Your task to perform on an android device: open sync settings in chrome Image 0: 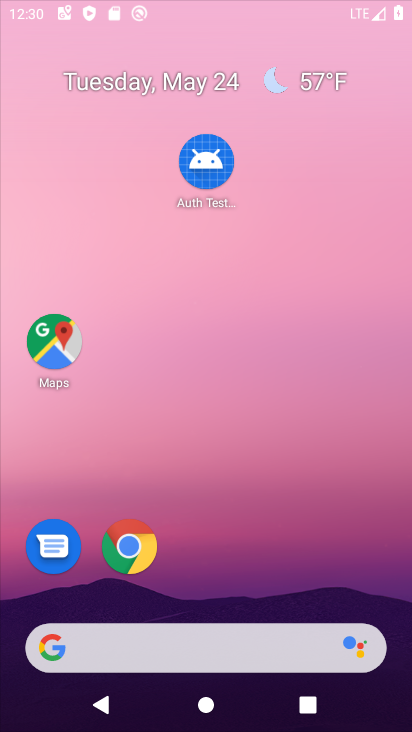
Step 0: click (304, 131)
Your task to perform on an android device: open sync settings in chrome Image 1: 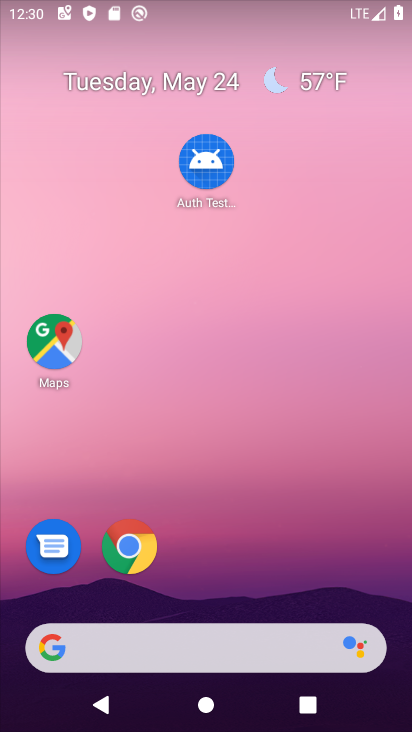
Step 1: drag from (254, 604) to (325, 58)
Your task to perform on an android device: open sync settings in chrome Image 2: 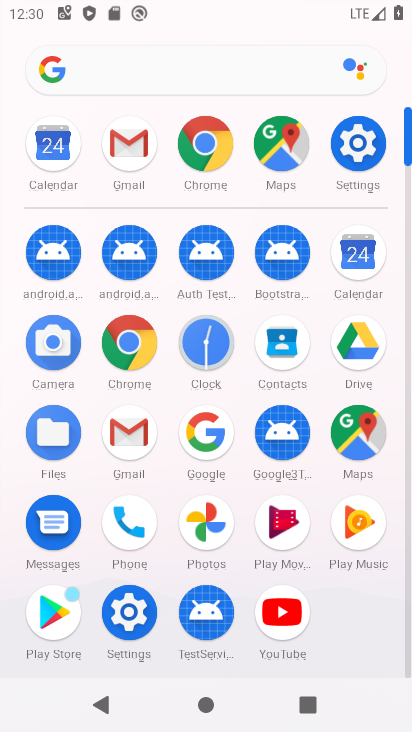
Step 2: click (116, 341)
Your task to perform on an android device: open sync settings in chrome Image 3: 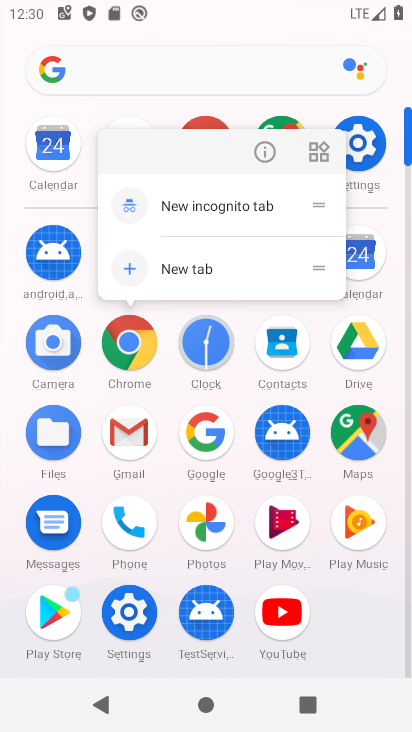
Step 3: click (263, 160)
Your task to perform on an android device: open sync settings in chrome Image 4: 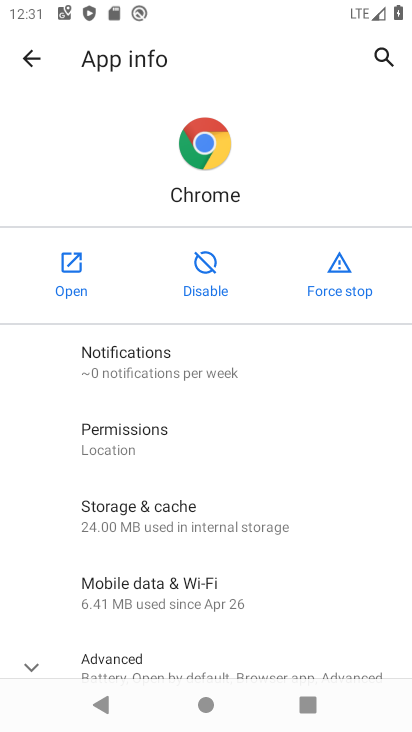
Step 4: click (74, 281)
Your task to perform on an android device: open sync settings in chrome Image 5: 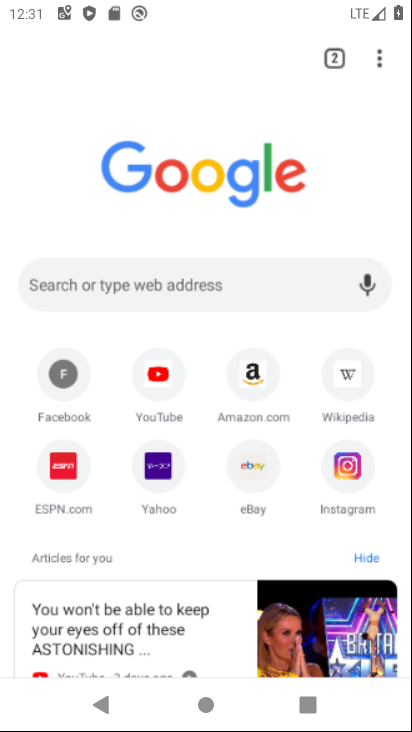
Step 5: click (369, 60)
Your task to perform on an android device: open sync settings in chrome Image 6: 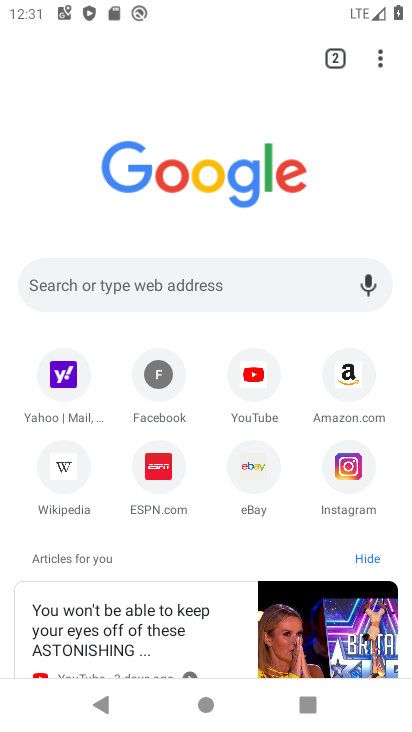
Step 6: drag from (216, 302) to (246, 137)
Your task to perform on an android device: open sync settings in chrome Image 7: 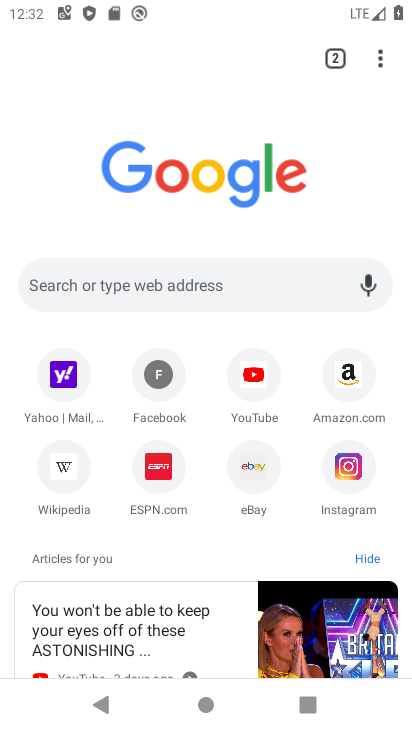
Step 7: drag from (214, 514) to (285, 30)
Your task to perform on an android device: open sync settings in chrome Image 8: 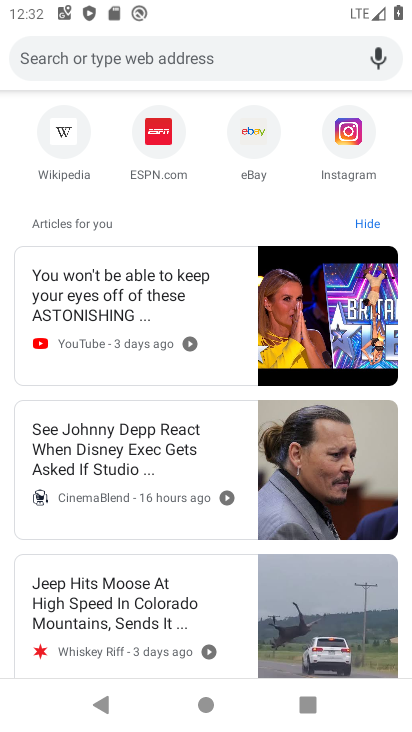
Step 8: drag from (197, 599) to (245, 116)
Your task to perform on an android device: open sync settings in chrome Image 9: 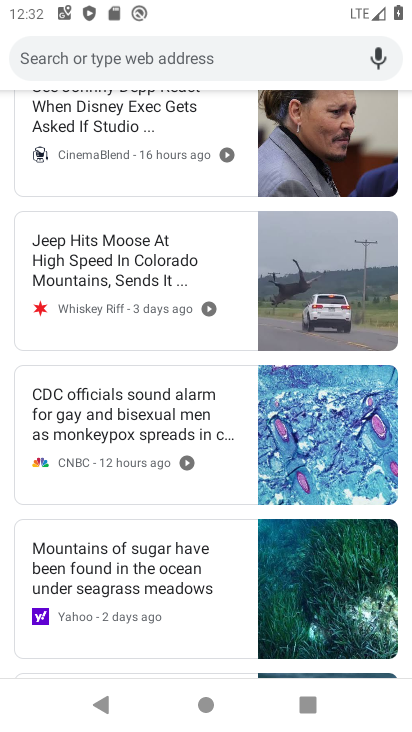
Step 9: drag from (220, 230) to (265, 695)
Your task to perform on an android device: open sync settings in chrome Image 10: 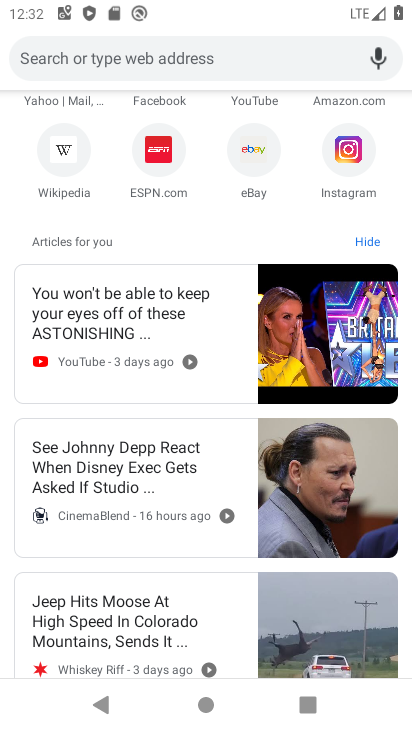
Step 10: drag from (133, 571) to (238, 670)
Your task to perform on an android device: open sync settings in chrome Image 11: 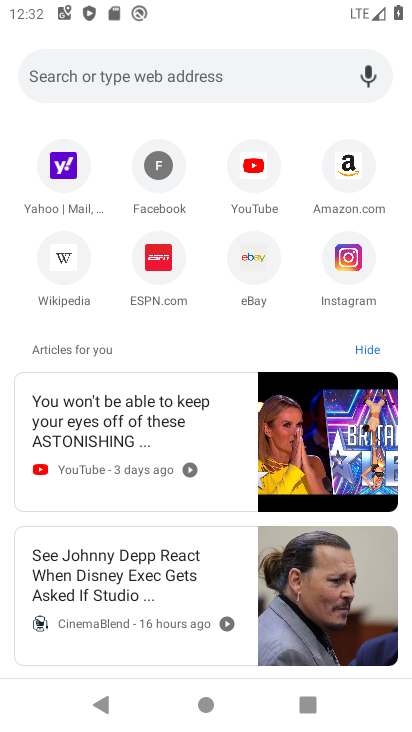
Step 11: drag from (225, 125) to (333, 592)
Your task to perform on an android device: open sync settings in chrome Image 12: 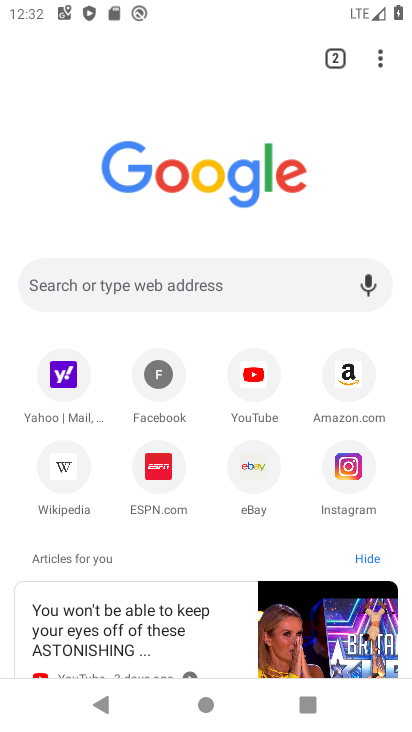
Step 12: click (373, 52)
Your task to perform on an android device: open sync settings in chrome Image 13: 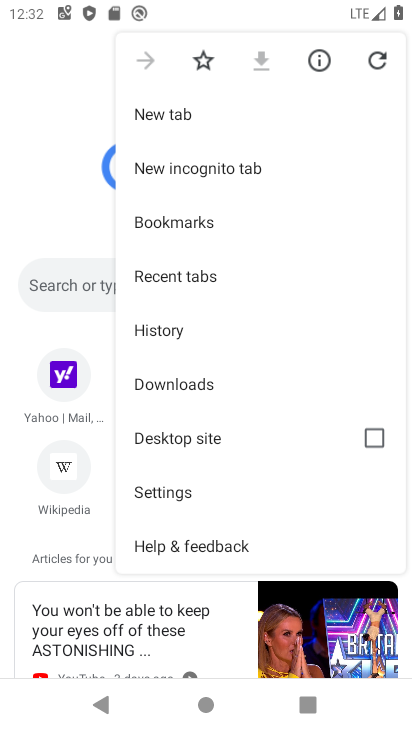
Step 13: drag from (259, 561) to (330, 186)
Your task to perform on an android device: open sync settings in chrome Image 14: 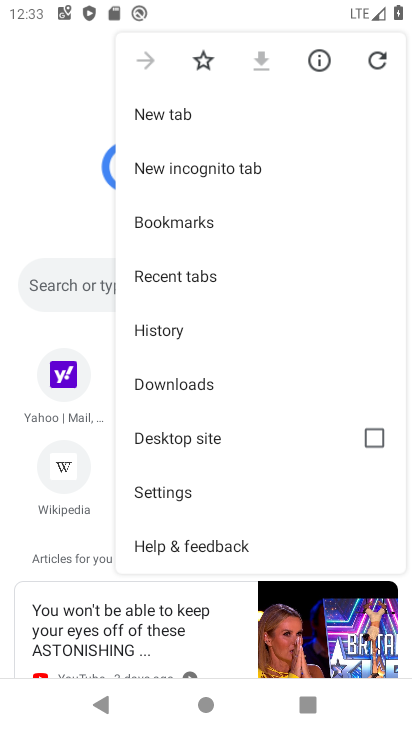
Step 14: click (213, 491)
Your task to perform on an android device: open sync settings in chrome Image 15: 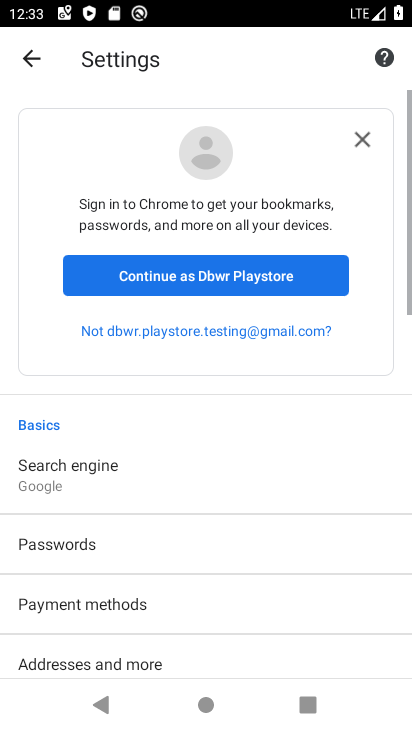
Step 15: drag from (244, 612) to (360, 17)
Your task to perform on an android device: open sync settings in chrome Image 16: 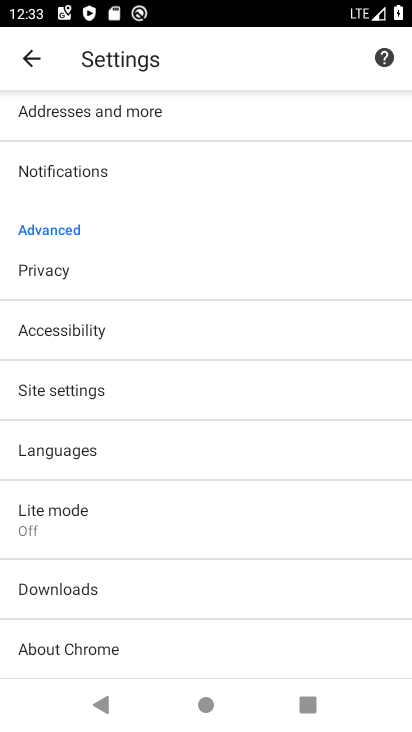
Step 16: drag from (206, 570) to (308, 202)
Your task to perform on an android device: open sync settings in chrome Image 17: 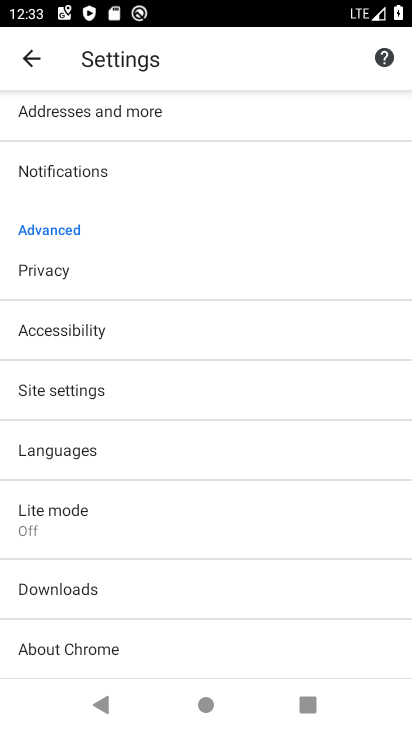
Step 17: click (115, 391)
Your task to perform on an android device: open sync settings in chrome Image 18: 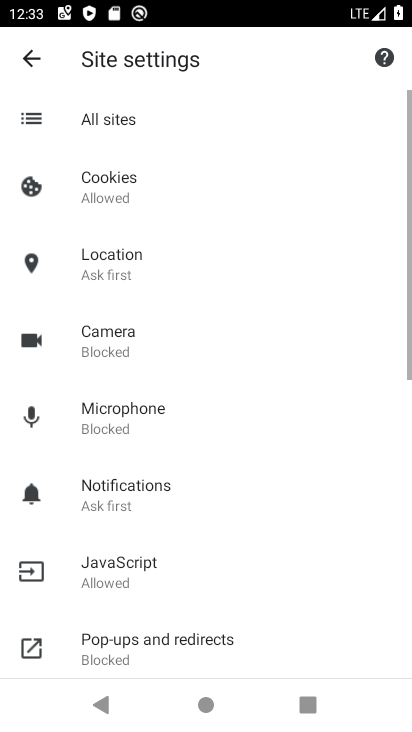
Step 18: drag from (223, 616) to (245, 209)
Your task to perform on an android device: open sync settings in chrome Image 19: 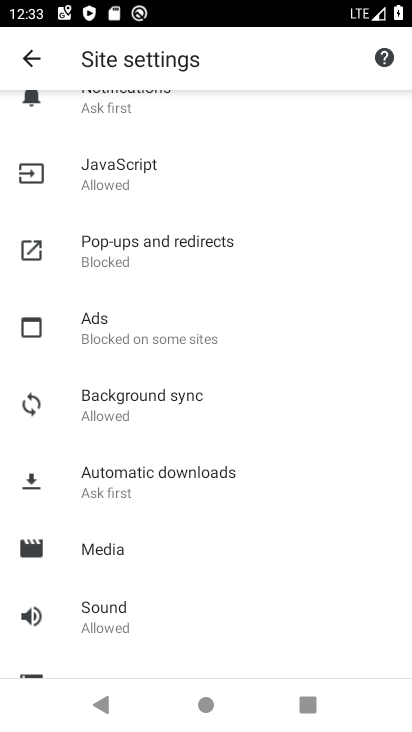
Step 19: drag from (212, 551) to (272, 387)
Your task to perform on an android device: open sync settings in chrome Image 20: 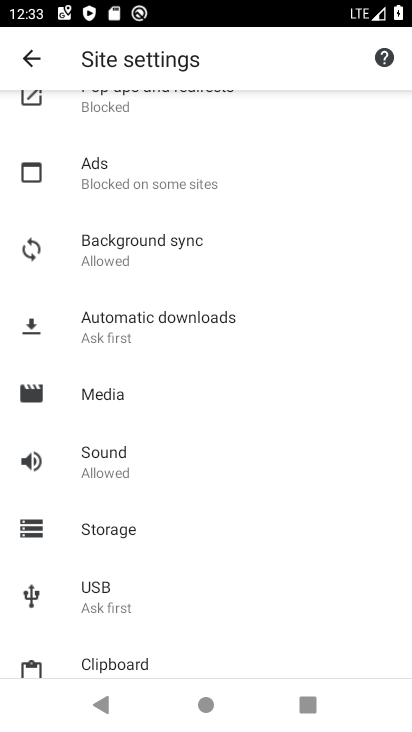
Step 20: drag from (208, 220) to (275, 649)
Your task to perform on an android device: open sync settings in chrome Image 21: 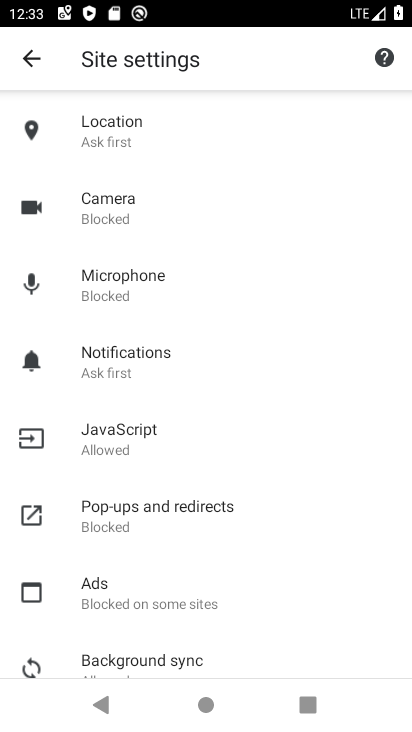
Step 21: drag from (207, 241) to (244, 582)
Your task to perform on an android device: open sync settings in chrome Image 22: 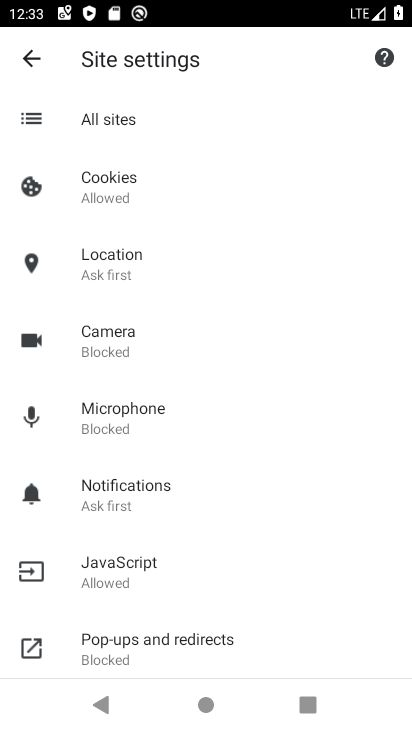
Step 22: drag from (249, 536) to (320, 45)
Your task to perform on an android device: open sync settings in chrome Image 23: 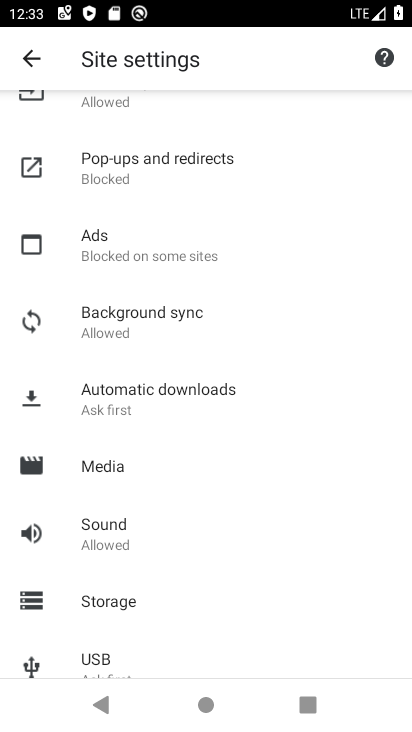
Step 23: drag from (181, 568) to (275, 141)
Your task to perform on an android device: open sync settings in chrome Image 24: 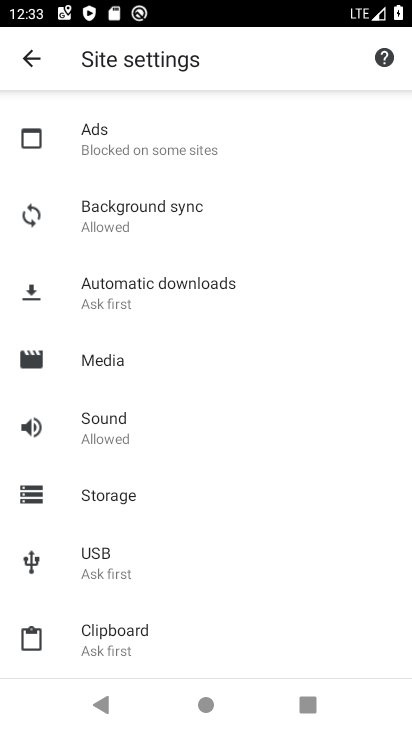
Step 24: click (21, 58)
Your task to perform on an android device: open sync settings in chrome Image 25: 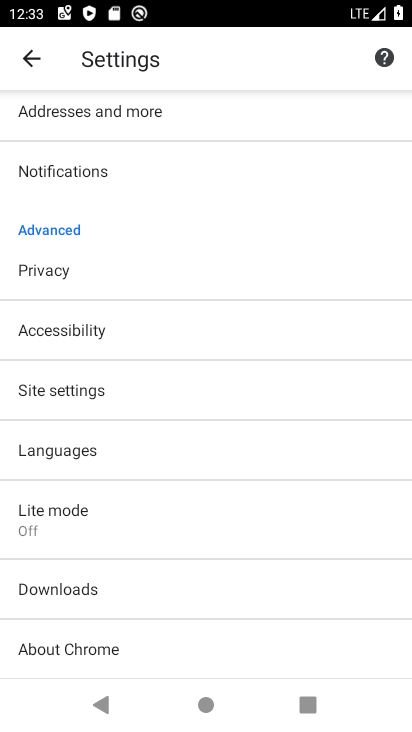
Step 25: click (154, 399)
Your task to perform on an android device: open sync settings in chrome Image 26: 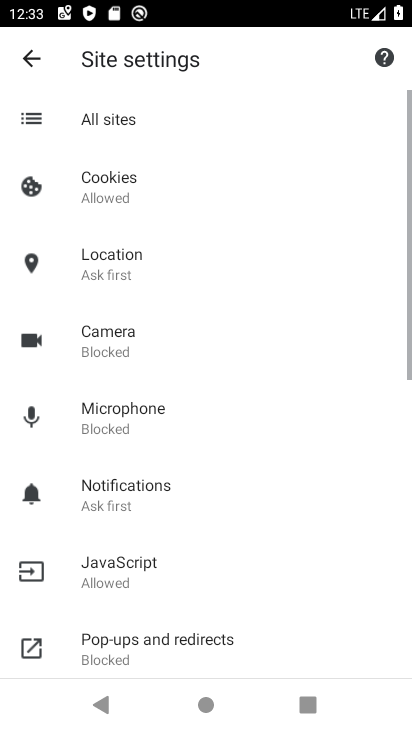
Step 26: drag from (210, 498) to (258, 305)
Your task to perform on an android device: open sync settings in chrome Image 27: 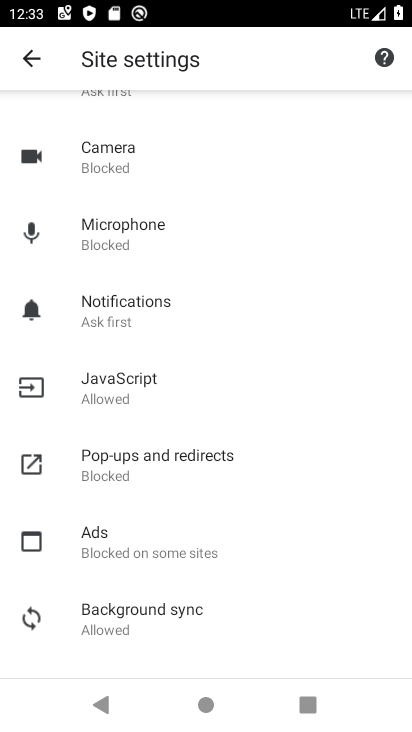
Step 27: click (146, 625)
Your task to perform on an android device: open sync settings in chrome Image 28: 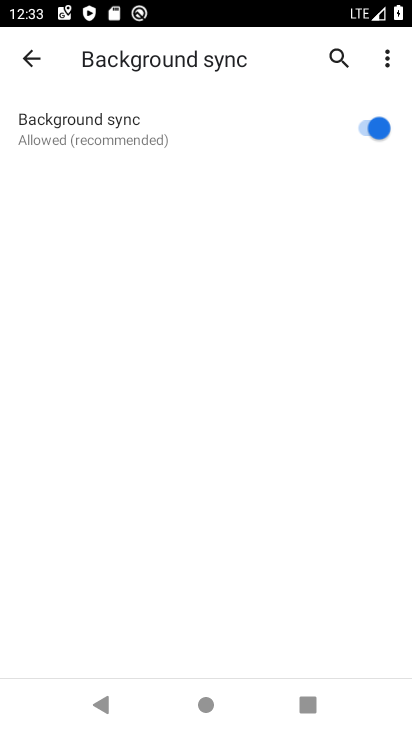
Step 28: click (367, 120)
Your task to perform on an android device: open sync settings in chrome Image 29: 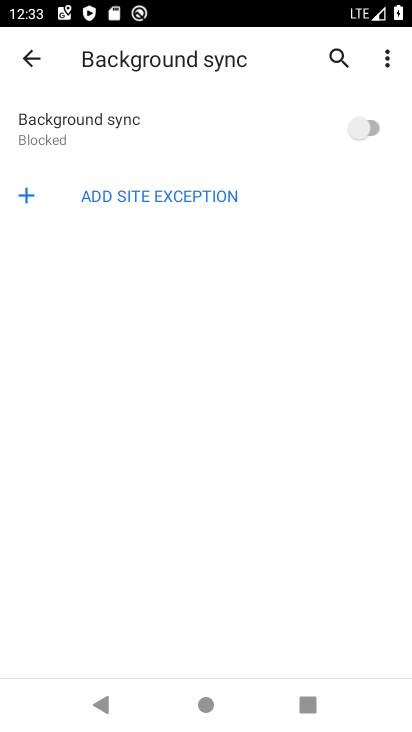
Step 29: task complete